Your task to perform on an android device: Go to Maps Image 0: 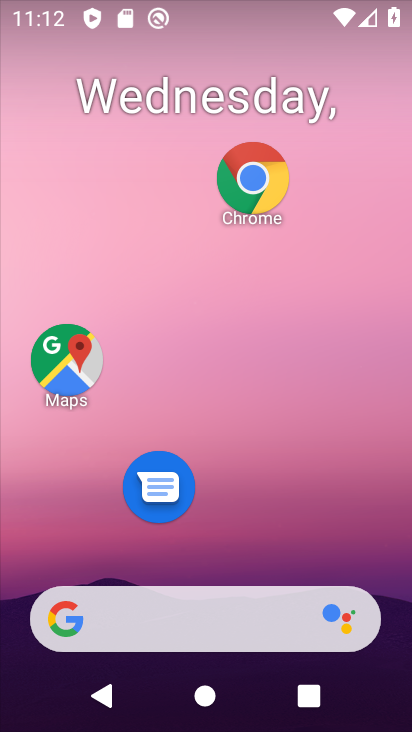
Step 0: click (80, 362)
Your task to perform on an android device: Go to Maps Image 1: 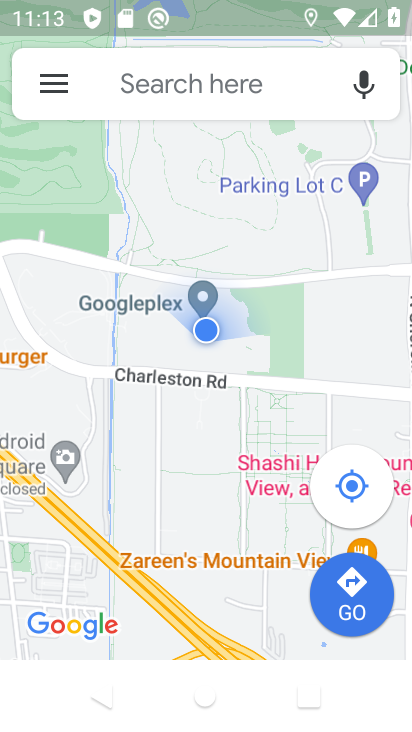
Step 1: task complete